Your task to perform on an android device: Open display settings Image 0: 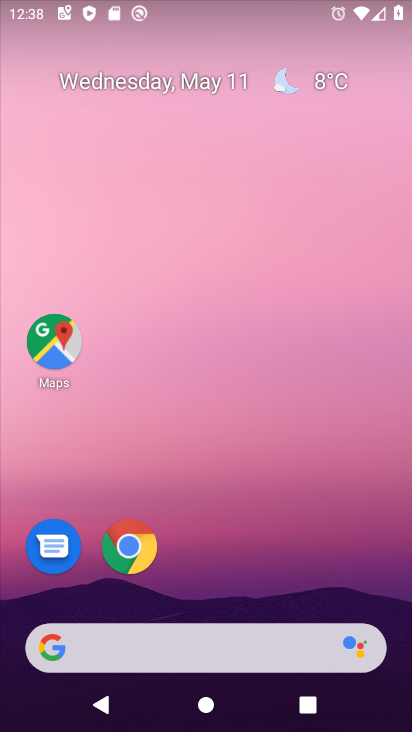
Step 0: drag from (135, 654) to (256, 224)
Your task to perform on an android device: Open display settings Image 1: 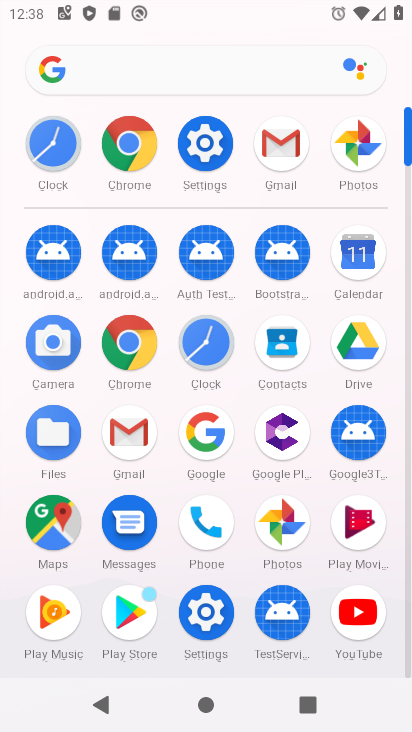
Step 1: click (212, 163)
Your task to perform on an android device: Open display settings Image 2: 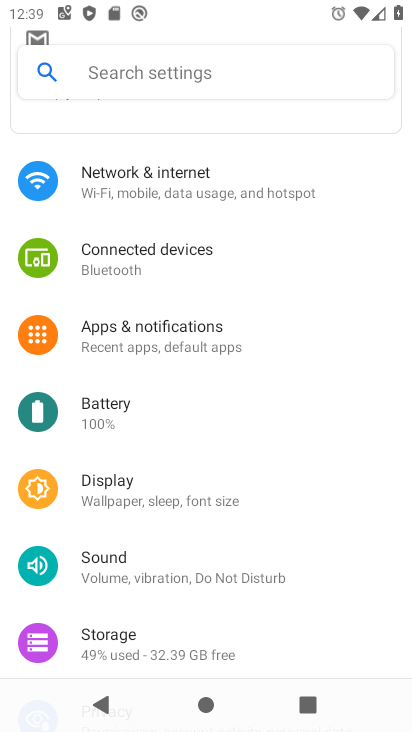
Step 2: click (89, 480)
Your task to perform on an android device: Open display settings Image 3: 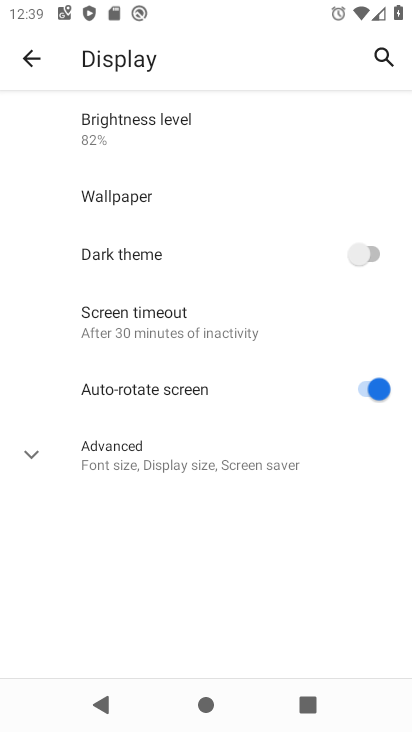
Step 3: task complete